Your task to perform on an android device: Go to ESPN.com Image 0: 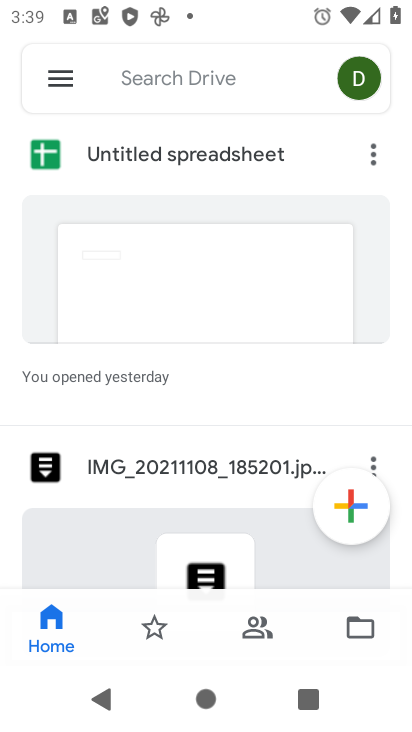
Step 0: press home button
Your task to perform on an android device: Go to ESPN.com Image 1: 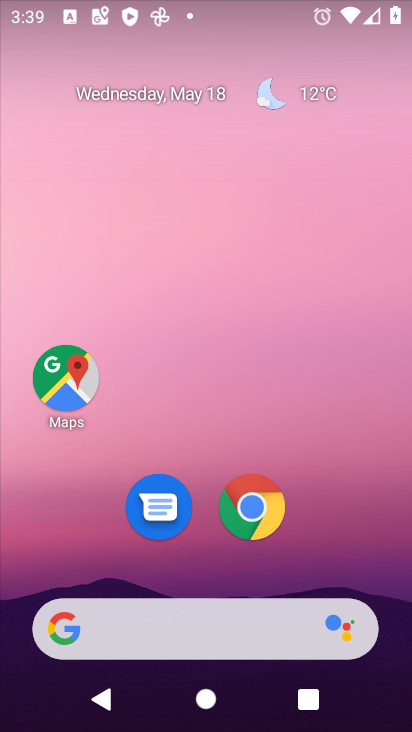
Step 1: click (254, 508)
Your task to perform on an android device: Go to ESPN.com Image 2: 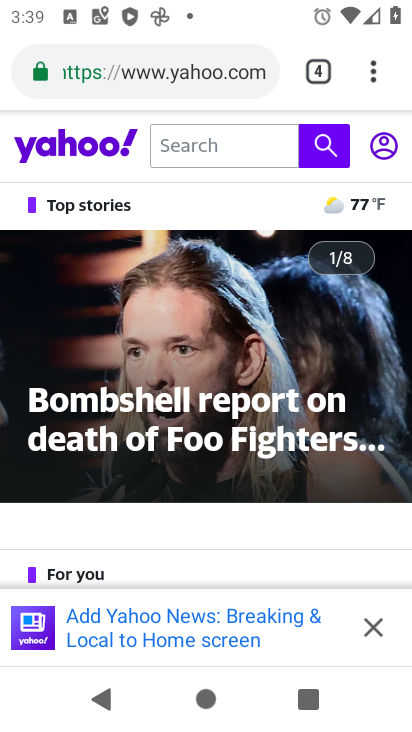
Step 2: click (178, 73)
Your task to perform on an android device: Go to ESPN.com Image 3: 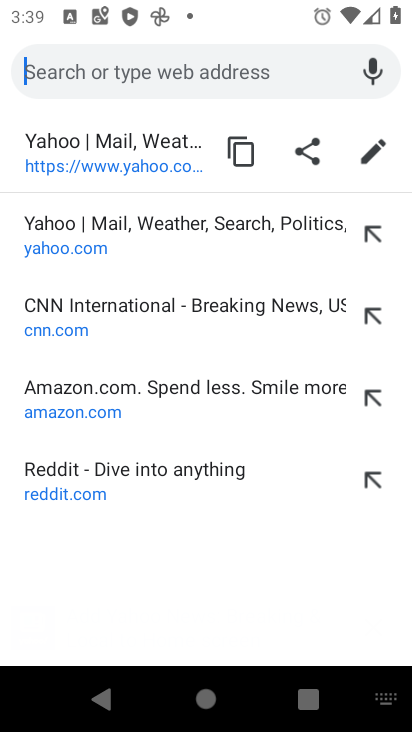
Step 3: type "espn.com"
Your task to perform on an android device: Go to ESPN.com Image 4: 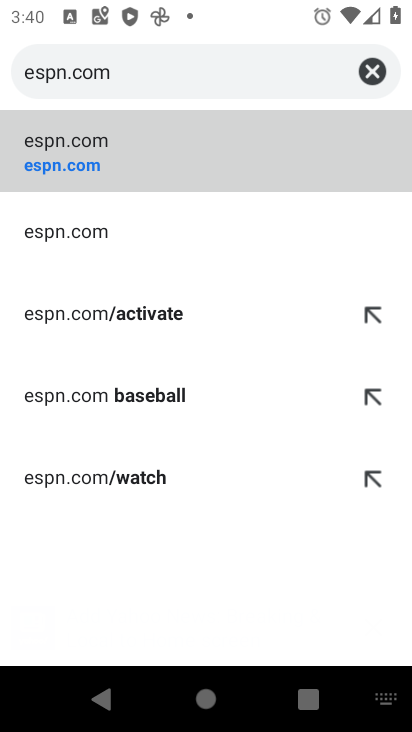
Step 4: click (63, 149)
Your task to perform on an android device: Go to ESPN.com Image 5: 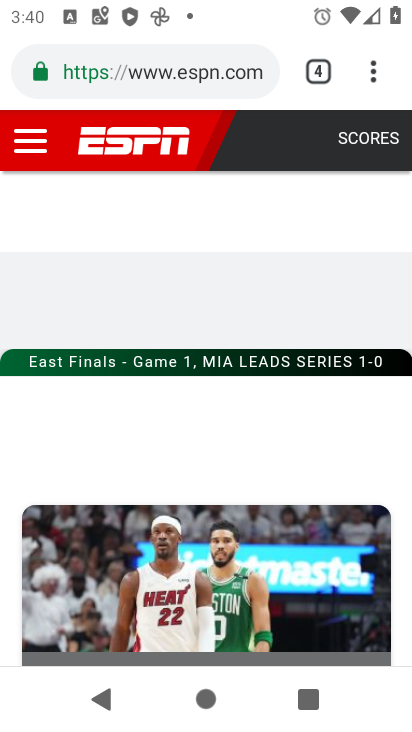
Step 5: task complete